Your task to perform on an android device: change the clock display to analog Image 0: 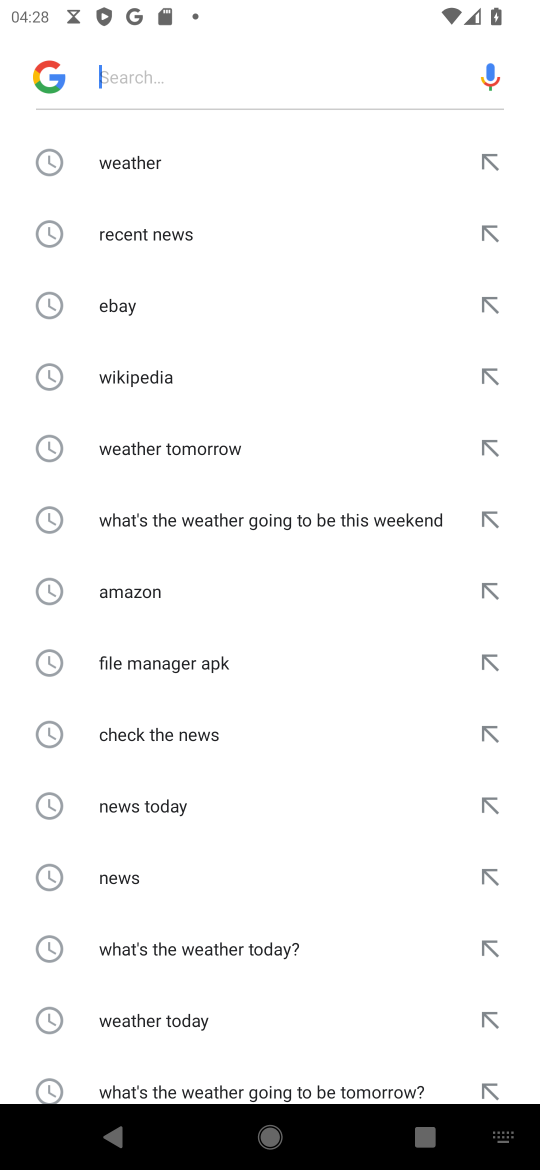
Step 0: press home button
Your task to perform on an android device: change the clock display to analog Image 1: 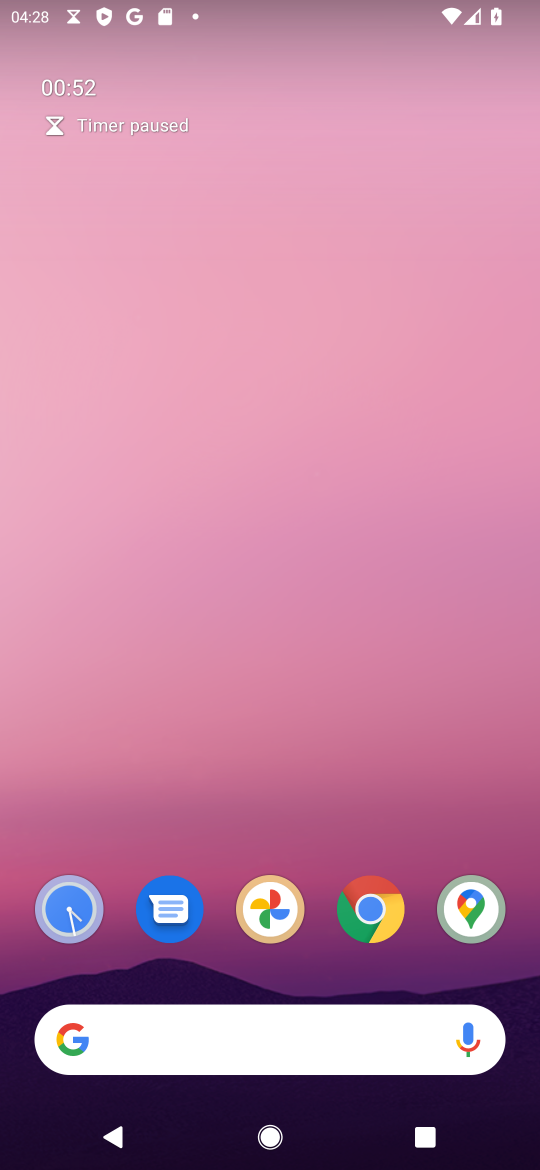
Step 1: drag from (330, 1045) to (375, 315)
Your task to perform on an android device: change the clock display to analog Image 2: 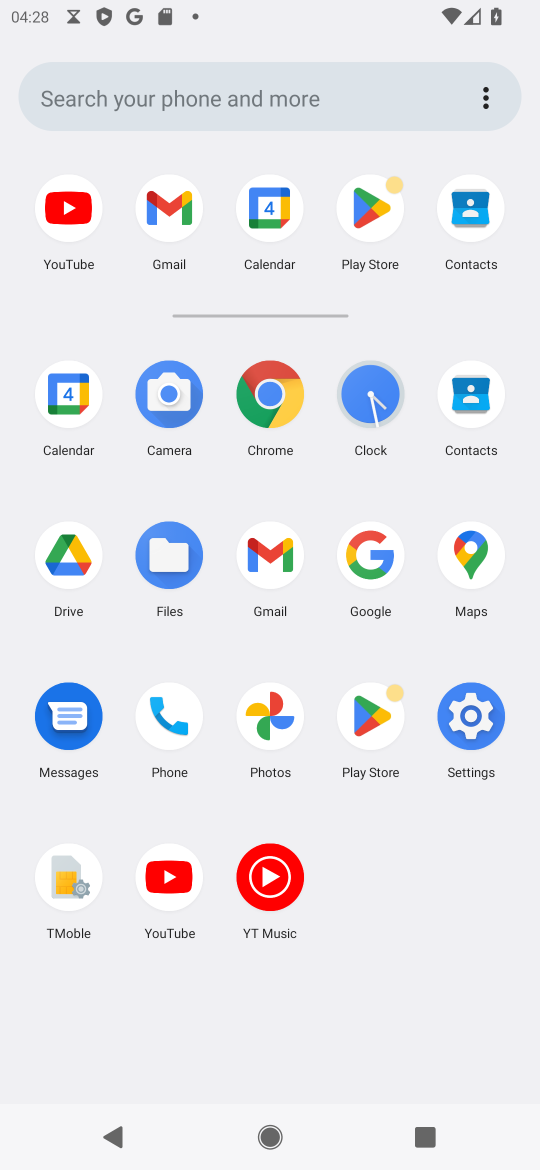
Step 2: click (357, 400)
Your task to perform on an android device: change the clock display to analog Image 3: 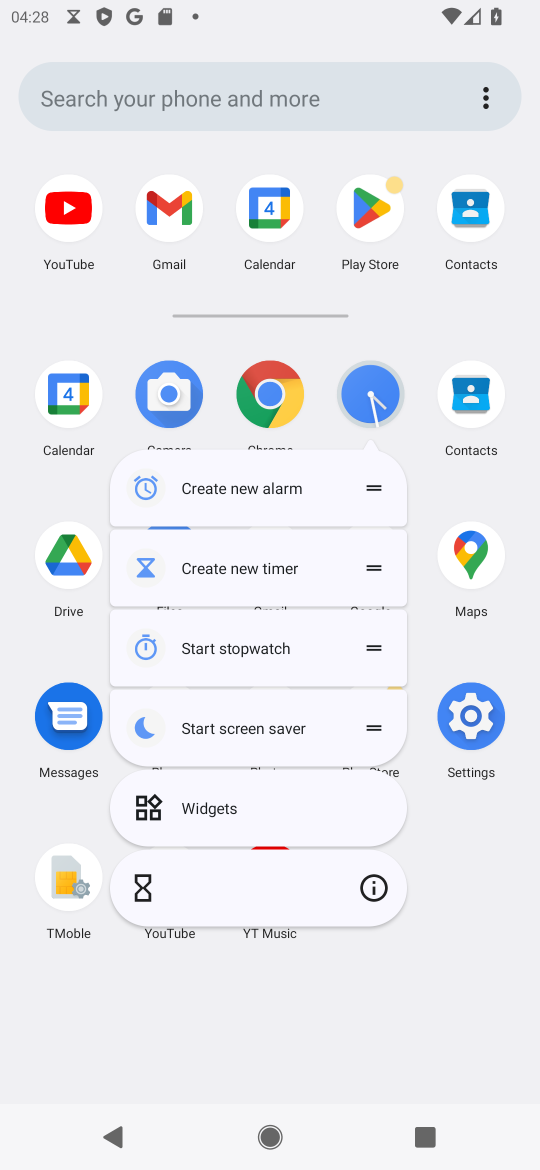
Step 3: click (376, 400)
Your task to perform on an android device: change the clock display to analog Image 4: 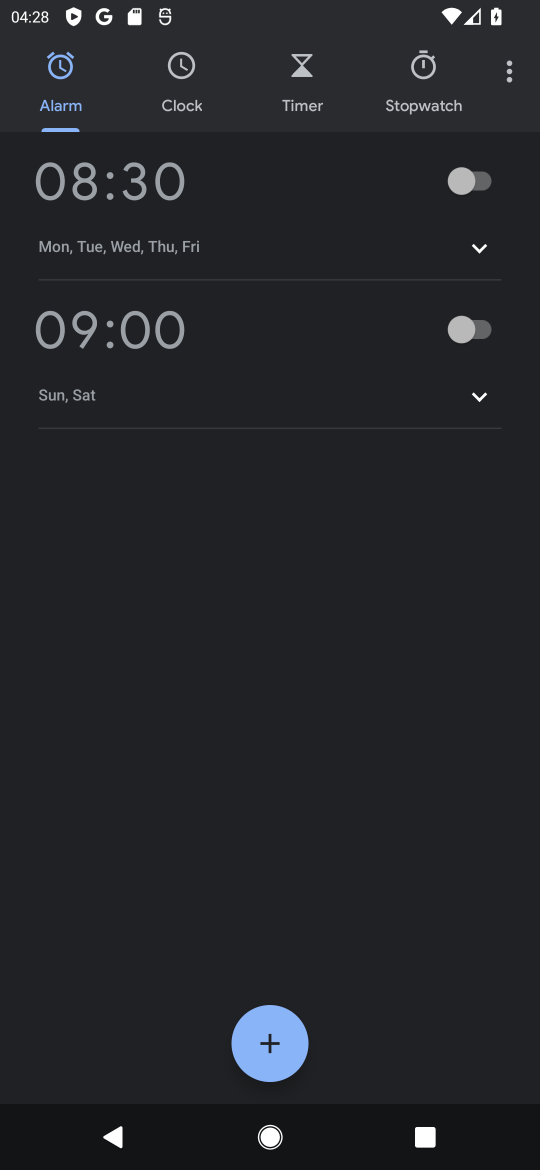
Step 4: click (506, 81)
Your task to perform on an android device: change the clock display to analog Image 5: 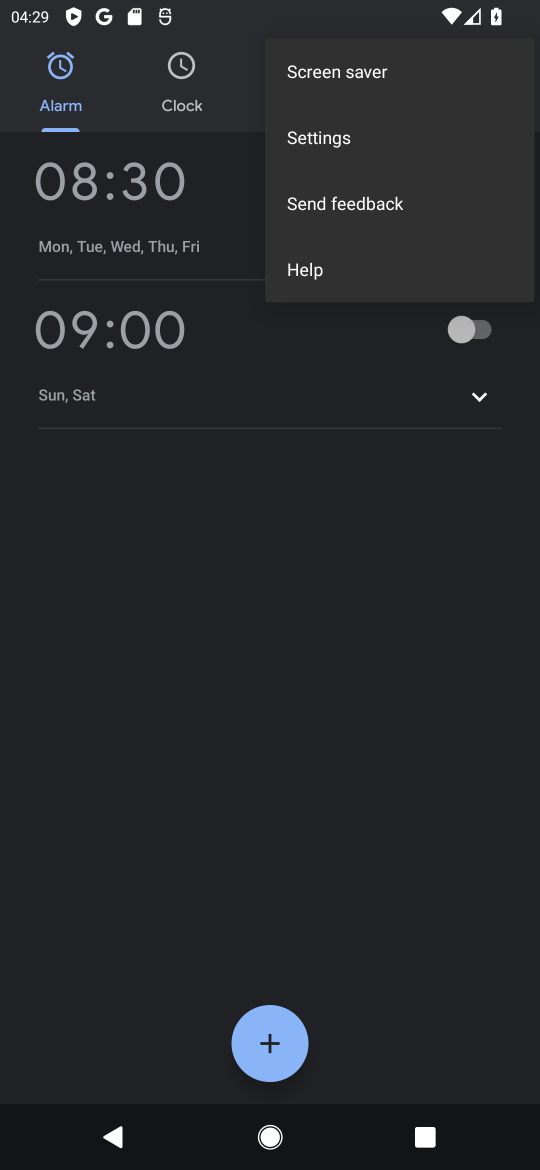
Step 5: click (333, 140)
Your task to perform on an android device: change the clock display to analog Image 6: 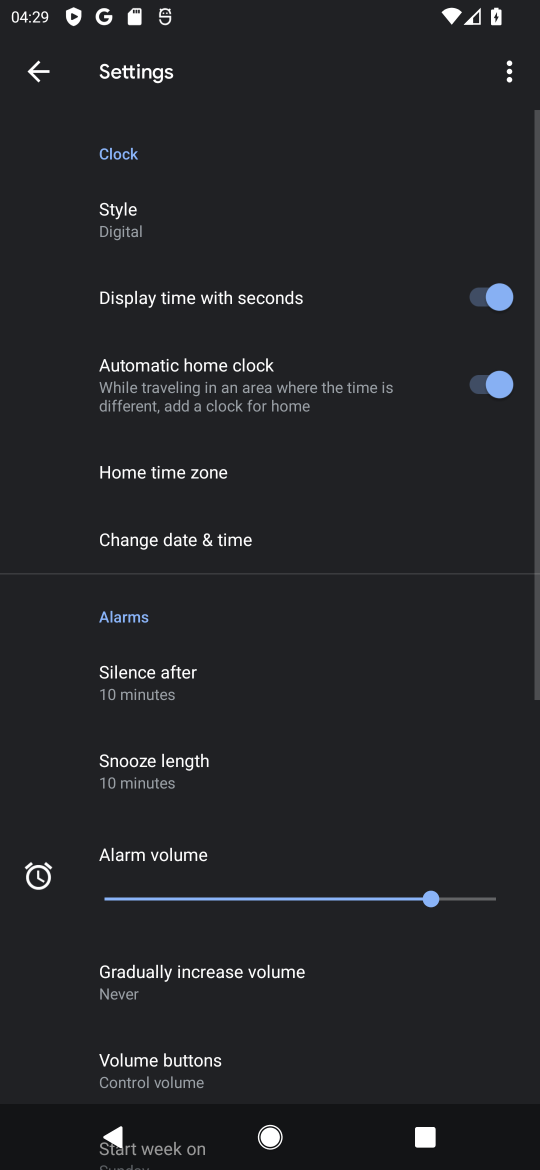
Step 6: click (127, 219)
Your task to perform on an android device: change the clock display to analog Image 7: 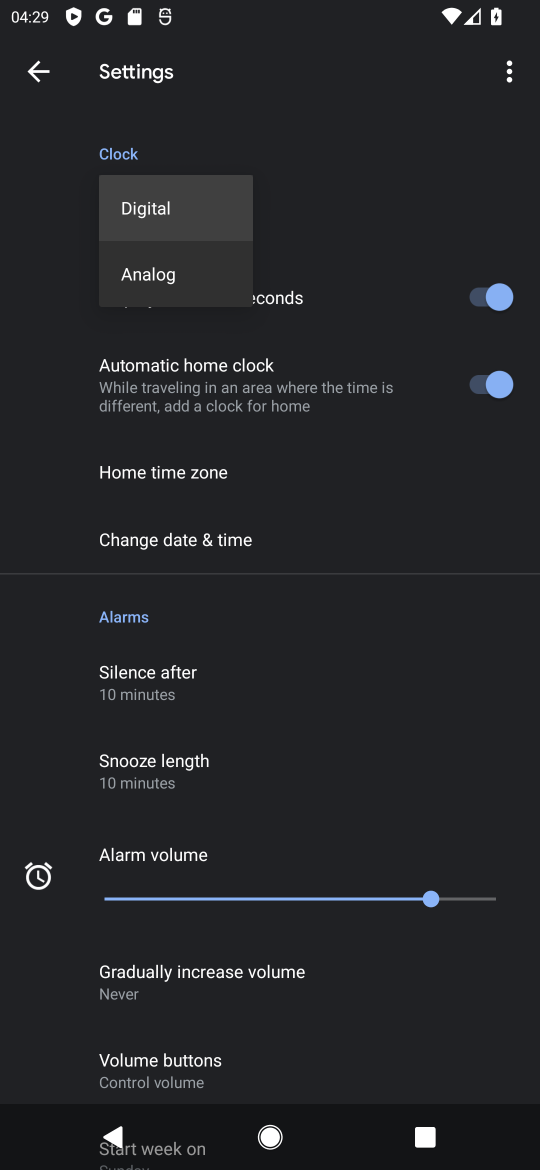
Step 7: click (161, 281)
Your task to perform on an android device: change the clock display to analog Image 8: 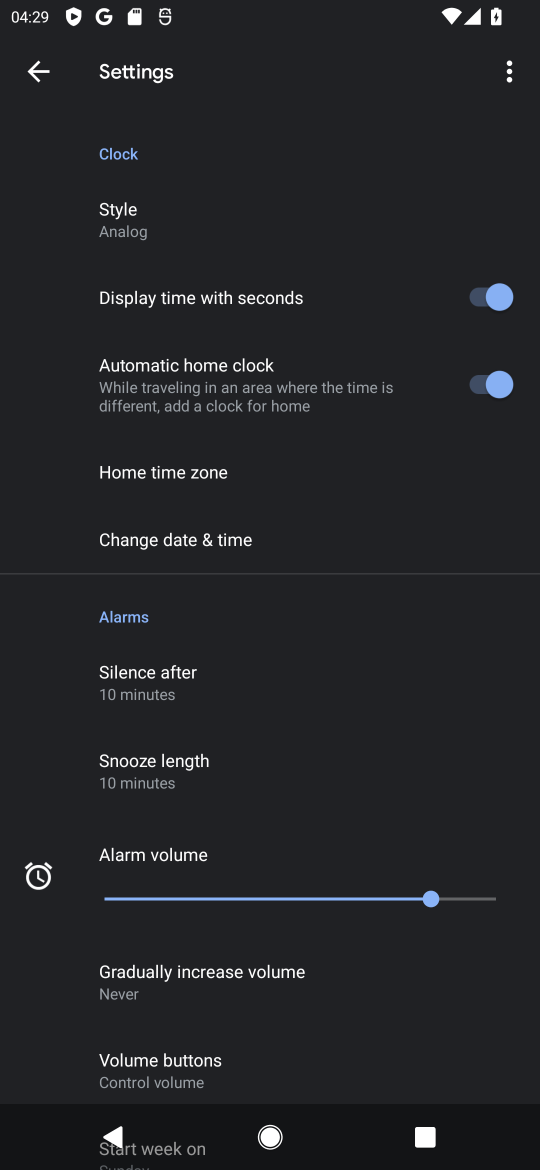
Step 8: task complete